Your task to perform on an android device: Open the map Image 0: 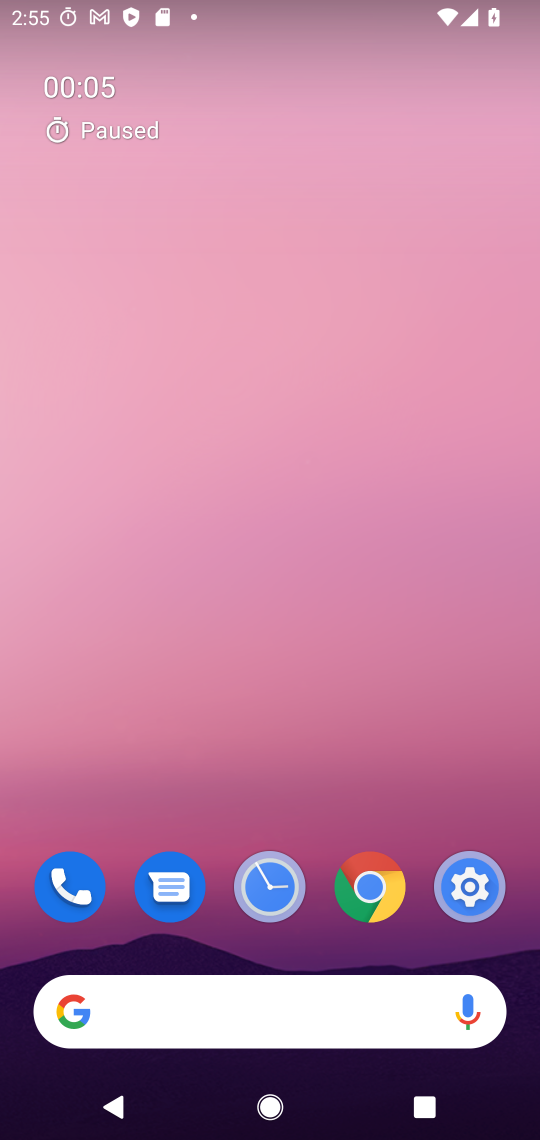
Step 0: drag from (271, 939) to (271, 432)
Your task to perform on an android device: Open the map Image 1: 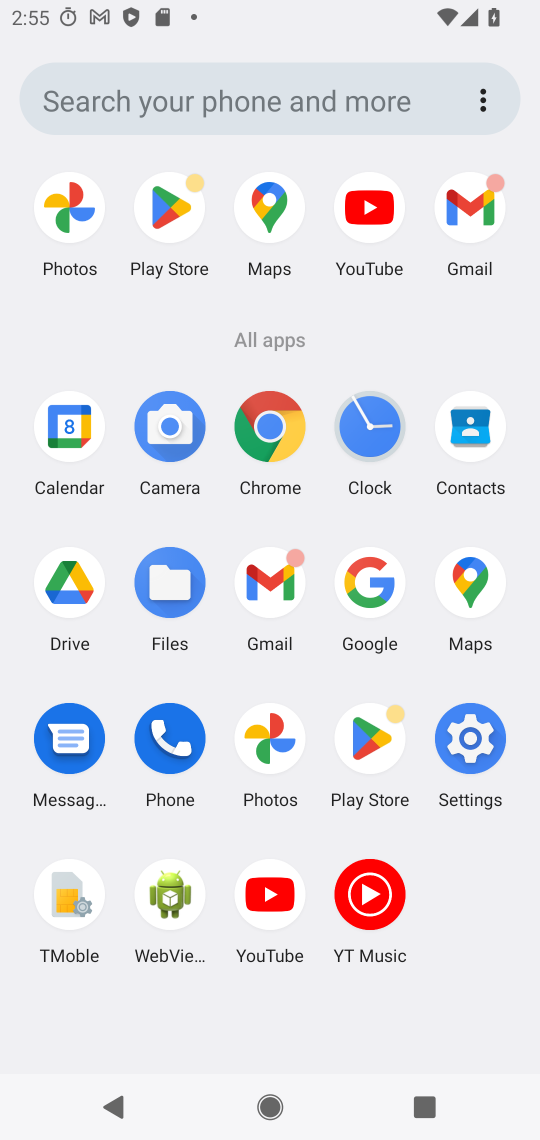
Step 1: click (464, 580)
Your task to perform on an android device: Open the map Image 2: 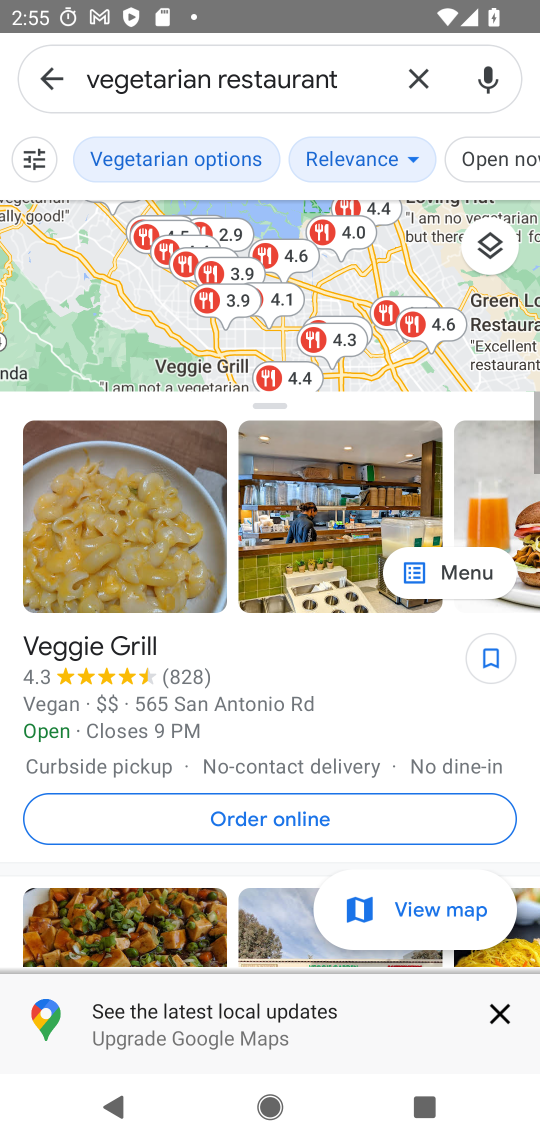
Step 2: click (408, 93)
Your task to perform on an android device: Open the map Image 3: 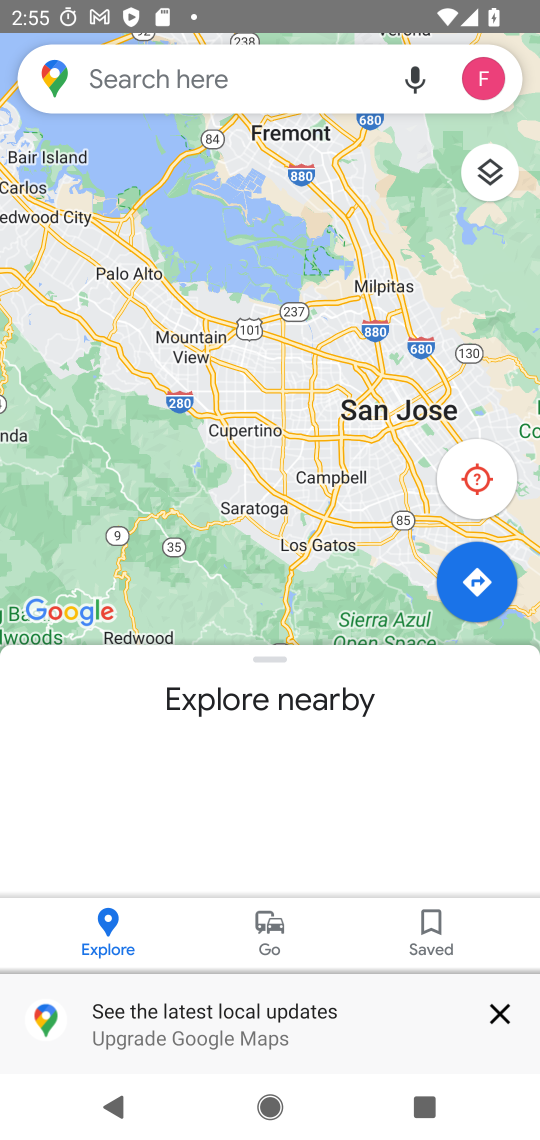
Step 3: task complete